Your task to perform on an android device: Play the last video I watched on Youtube Image 0: 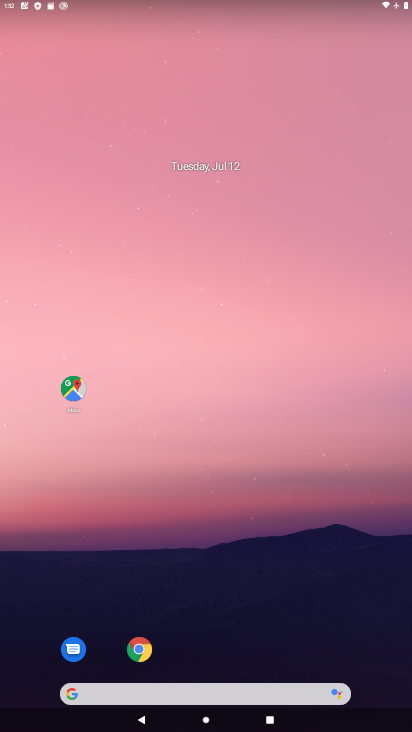
Step 0: drag from (262, 665) to (193, 83)
Your task to perform on an android device: Play the last video I watched on Youtube Image 1: 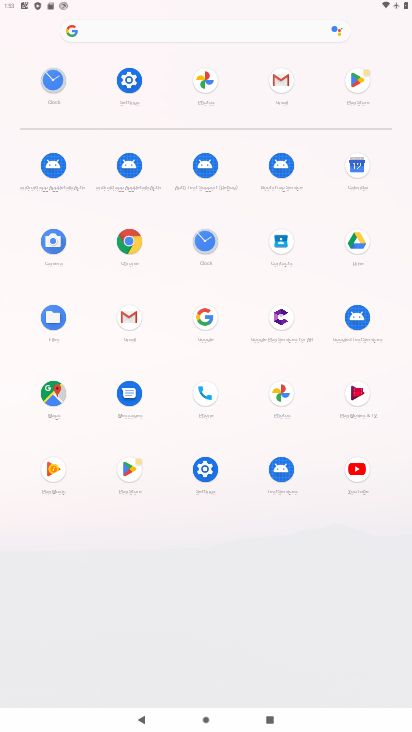
Step 1: click (354, 489)
Your task to perform on an android device: Play the last video I watched on Youtube Image 2: 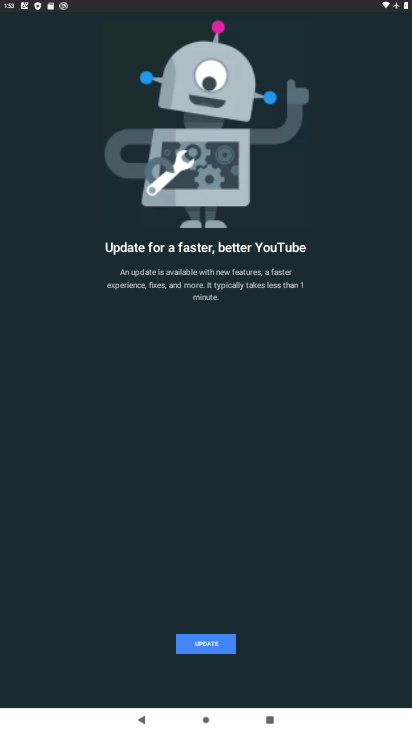
Step 2: click (209, 637)
Your task to perform on an android device: Play the last video I watched on Youtube Image 3: 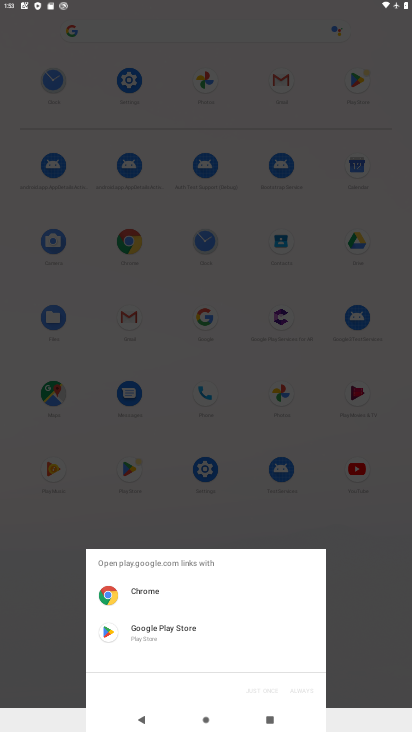
Step 3: click (269, 611)
Your task to perform on an android device: Play the last video I watched on Youtube Image 4: 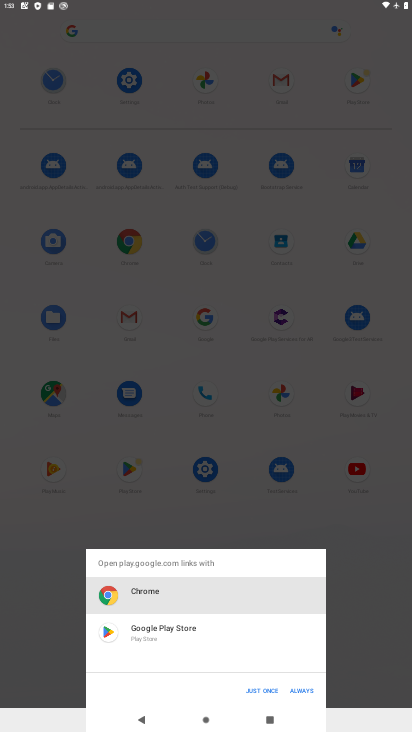
Step 4: click (188, 628)
Your task to perform on an android device: Play the last video I watched on Youtube Image 5: 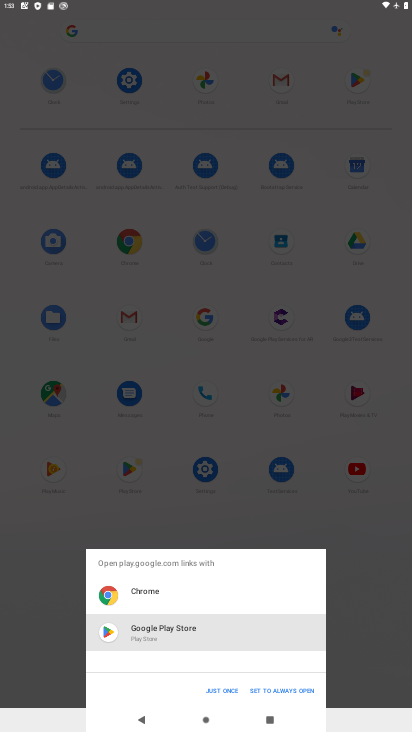
Step 5: click (206, 696)
Your task to perform on an android device: Play the last video I watched on Youtube Image 6: 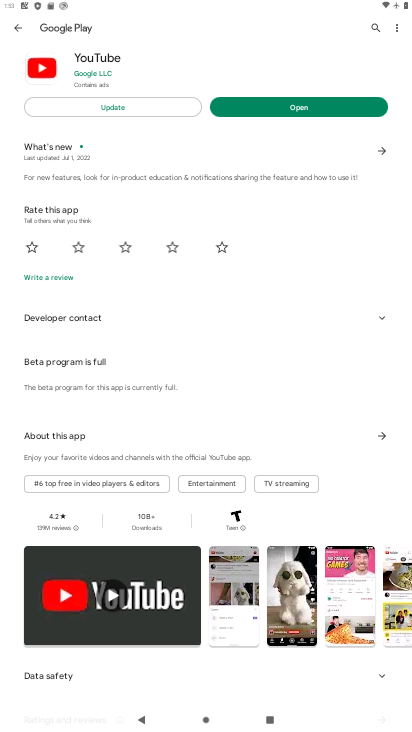
Step 6: click (145, 111)
Your task to perform on an android device: Play the last video I watched on Youtube Image 7: 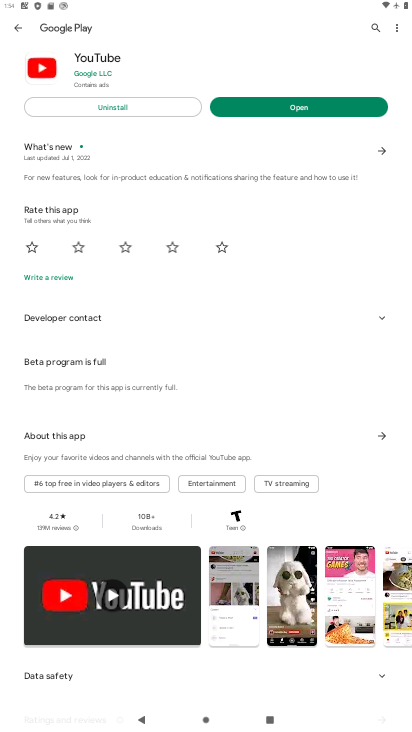
Step 7: click (302, 100)
Your task to perform on an android device: Play the last video I watched on Youtube Image 8: 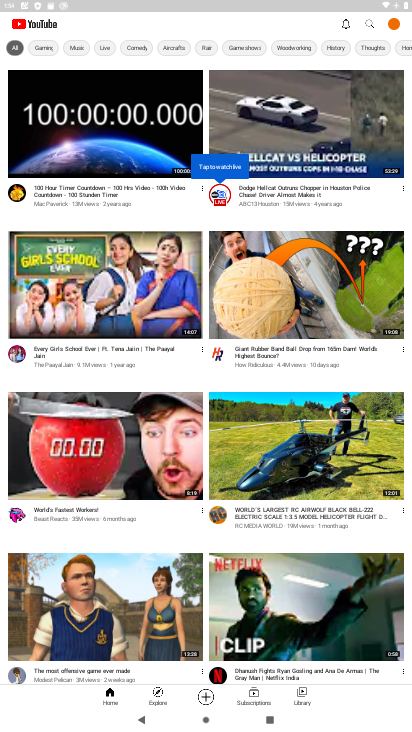
Step 8: click (306, 700)
Your task to perform on an android device: Play the last video I watched on Youtube Image 9: 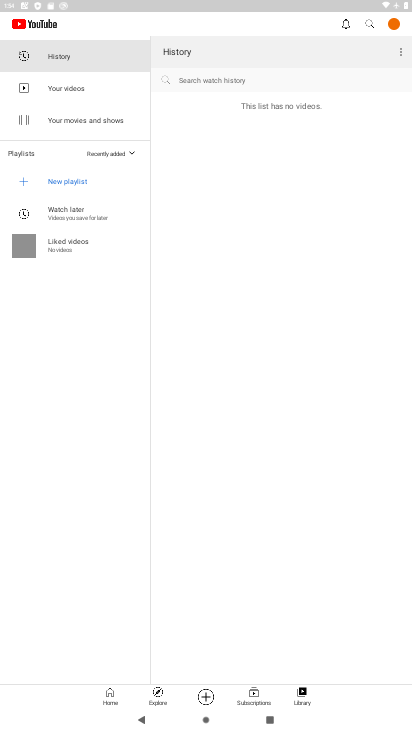
Step 9: click (81, 93)
Your task to perform on an android device: Play the last video I watched on Youtube Image 10: 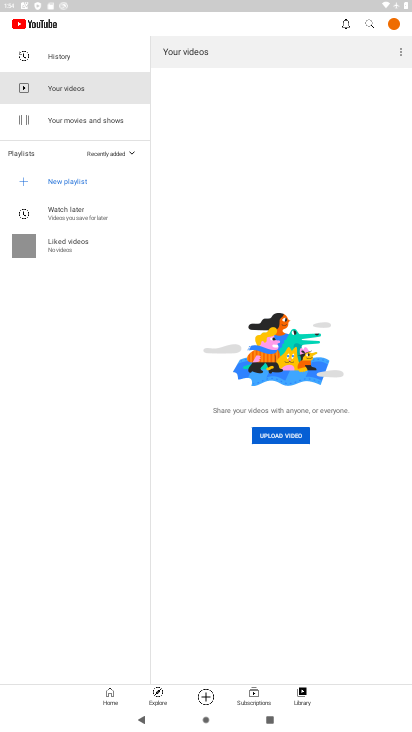
Step 10: task complete